Your task to perform on an android device: Open Amazon Image 0: 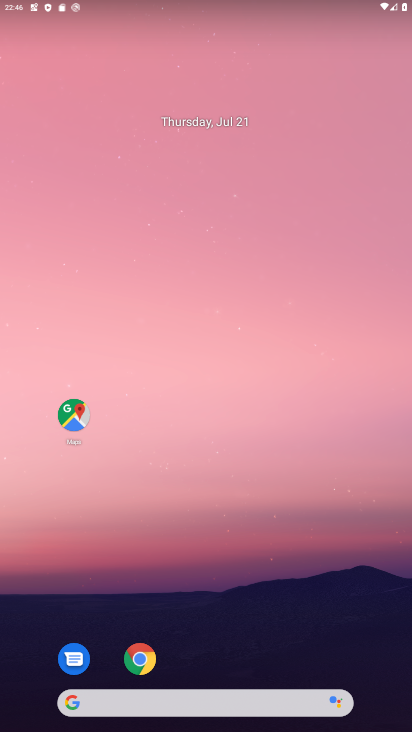
Step 0: drag from (296, 625) to (292, 16)
Your task to perform on an android device: Open Amazon Image 1: 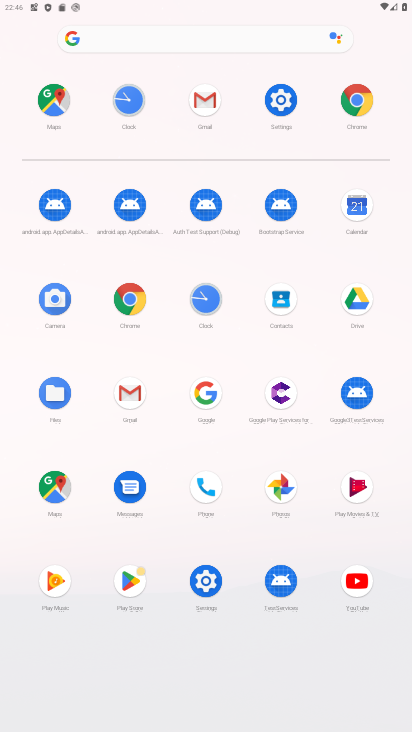
Step 1: click (354, 100)
Your task to perform on an android device: Open Amazon Image 2: 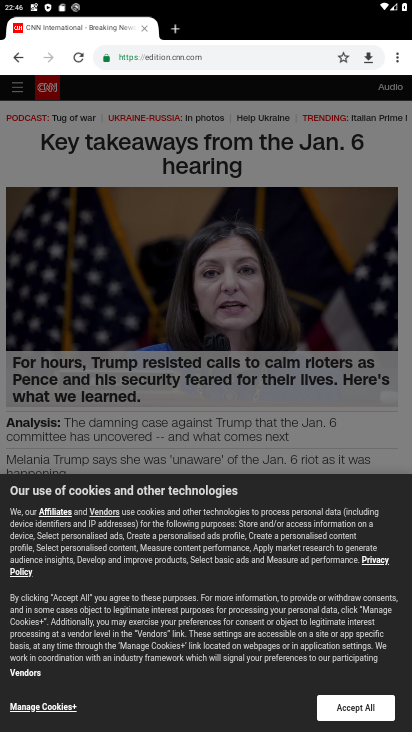
Step 2: click (130, 61)
Your task to perform on an android device: Open Amazon Image 3: 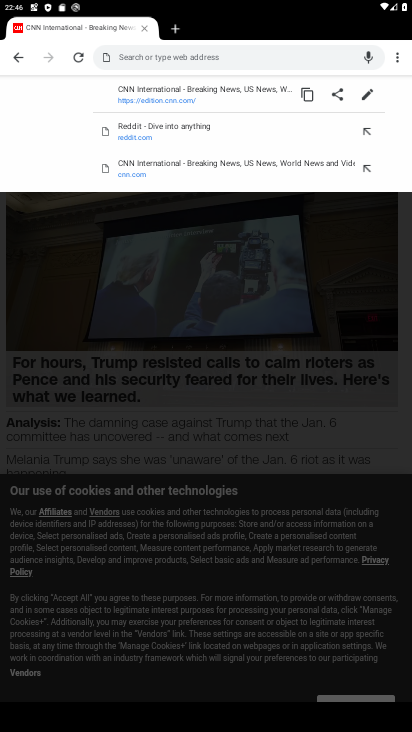
Step 3: type "amazon"
Your task to perform on an android device: Open Amazon Image 4: 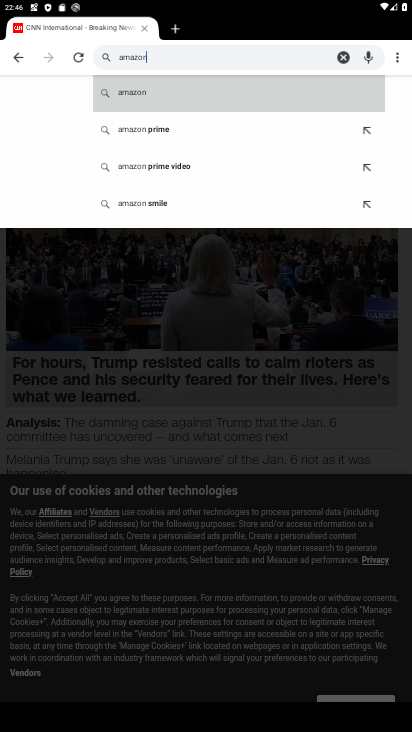
Step 4: click (174, 90)
Your task to perform on an android device: Open Amazon Image 5: 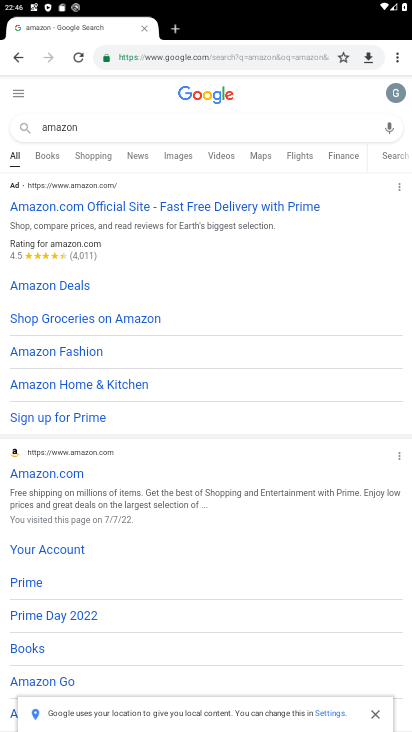
Step 5: click (57, 472)
Your task to perform on an android device: Open Amazon Image 6: 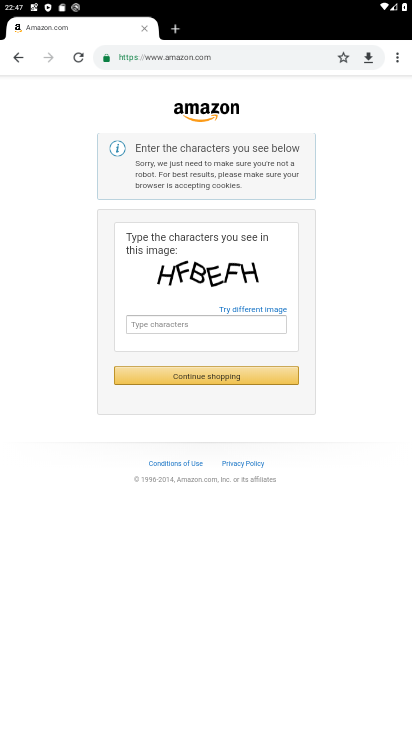
Step 6: task complete